Your task to perform on an android device: turn on showing notifications on the lock screen Image 0: 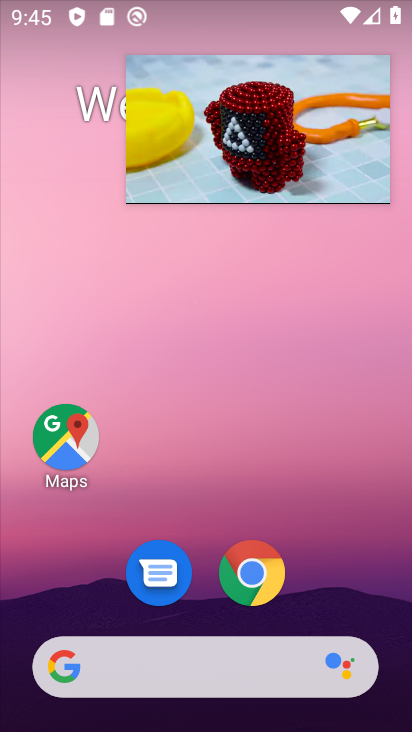
Step 0: drag from (375, 604) to (357, 231)
Your task to perform on an android device: turn on showing notifications on the lock screen Image 1: 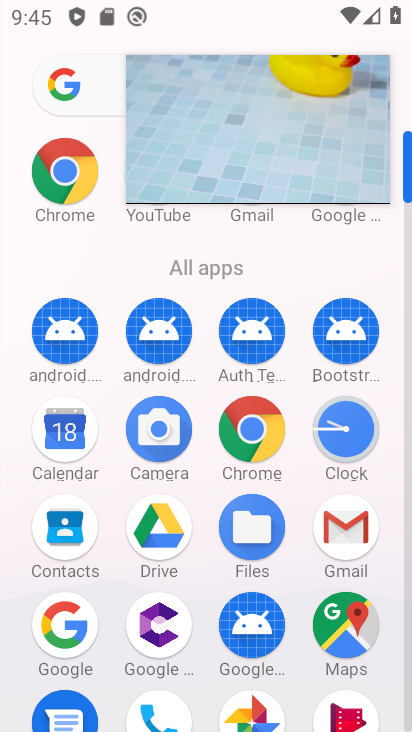
Step 1: drag from (203, 671) to (200, 356)
Your task to perform on an android device: turn on showing notifications on the lock screen Image 2: 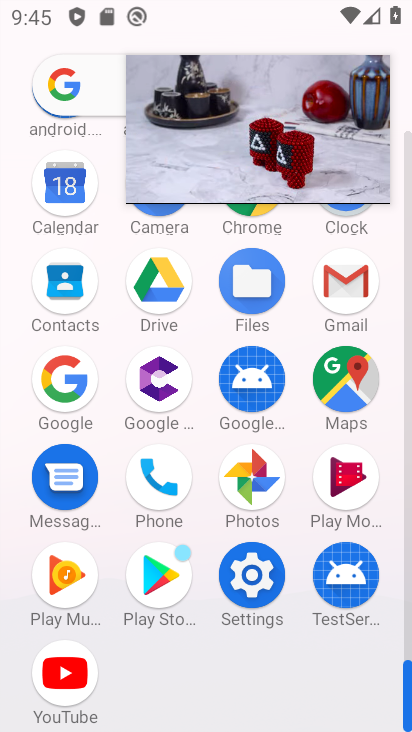
Step 2: click (263, 594)
Your task to perform on an android device: turn on showing notifications on the lock screen Image 3: 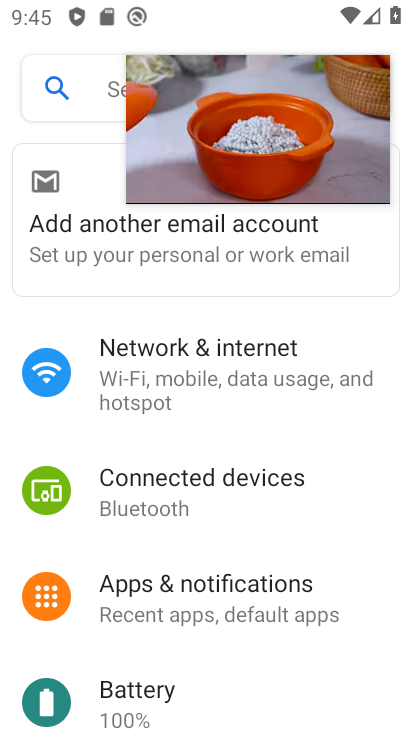
Step 3: drag from (357, 569) to (355, 431)
Your task to perform on an android device: turn on showing notifications on the lock screen Image 4: 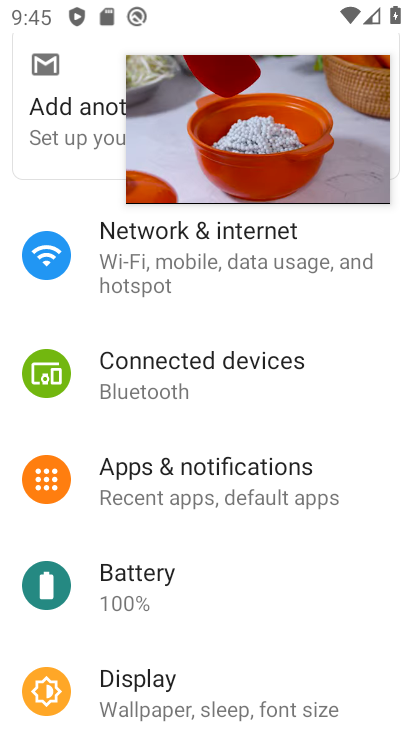
Step 4: drag from (343, 628) to (345, 490)
Your task to perform on an android device: turn on showing notifications on the lock screen Image 5: 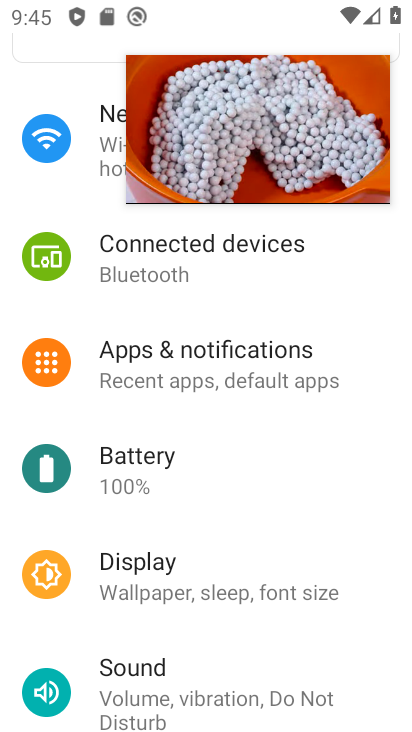
Step 5: drag from (354, 666) to (355, 517)
Your task to perform on an android device: turn on showing notifications on the lock screen Image 6: 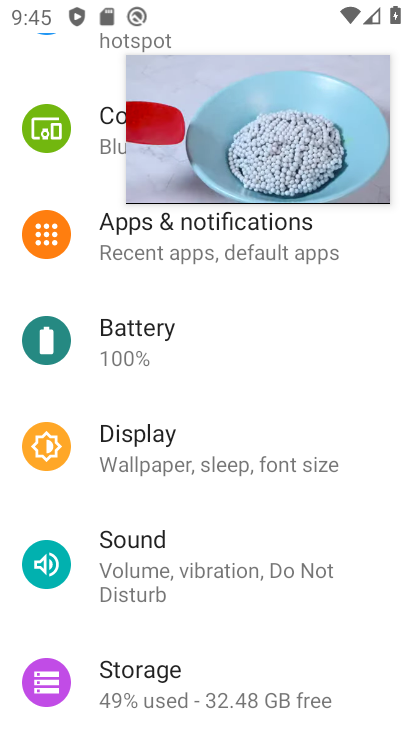
Step 6: drag from (360, 684) to (363, 528)
Your task to perform on an android device: turn on showing notifications on the lock screen Image 7: 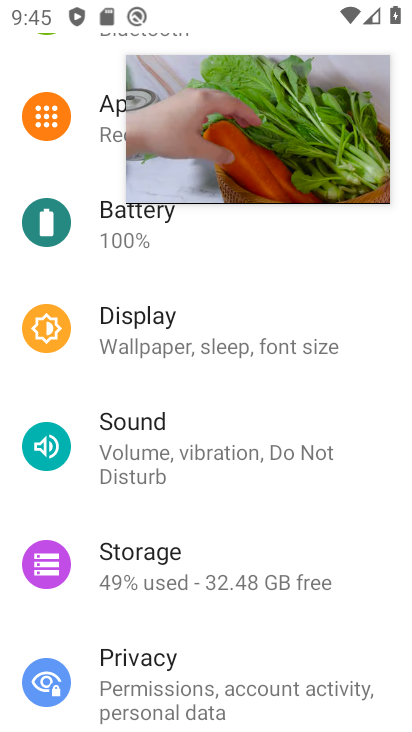
Step 7: drag from (371, 669) to (371, 509)
Your task to perform on an android device: turn on showing notifications on the lock screen Image 8: 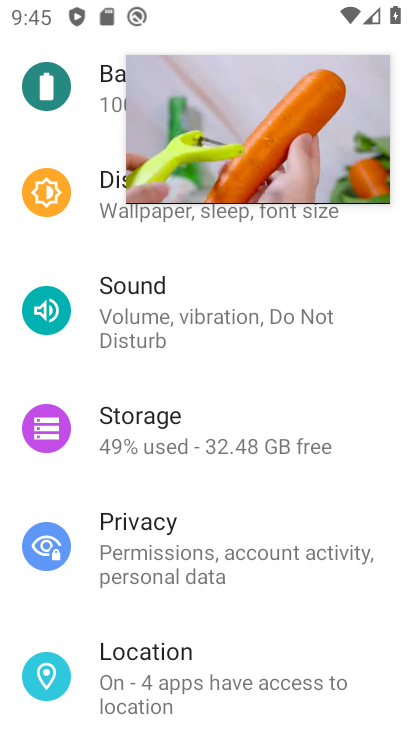
Step 8: drag from (375, 638) to (366, 525)
Your task to perform on an android device: turn on showing notifications on the lock screen Image 9: 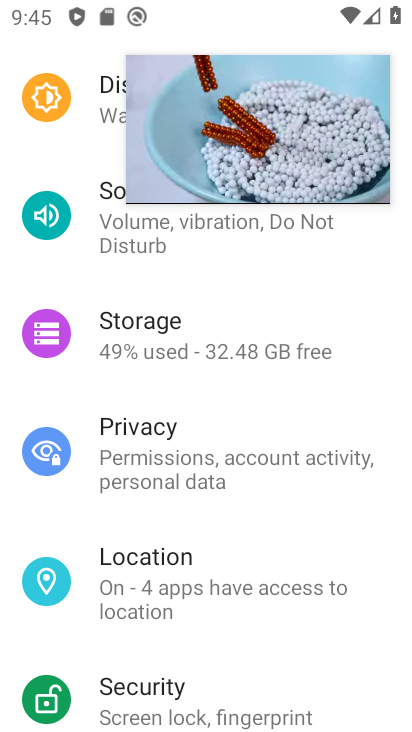
Step 9: drag from (356, 671) to (347, 566)
Your task to perform on an android device: turn on showing notifications on the lock screen Image 10: 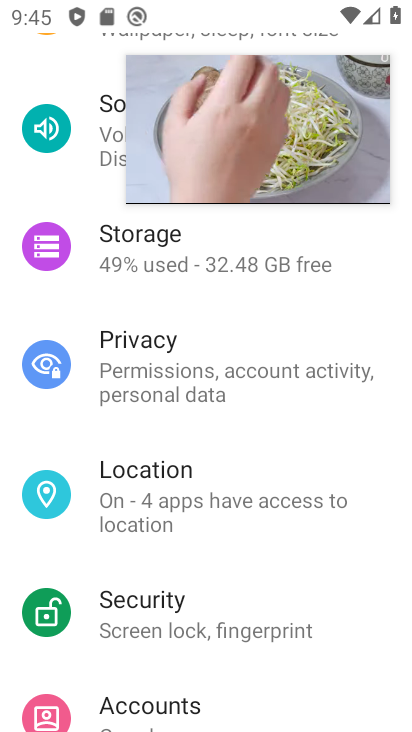
Step 10: drag from (361, 679) to (354, 580)
Your task to perform on an android device: turn on showing notifications on the lock screen Image 11: 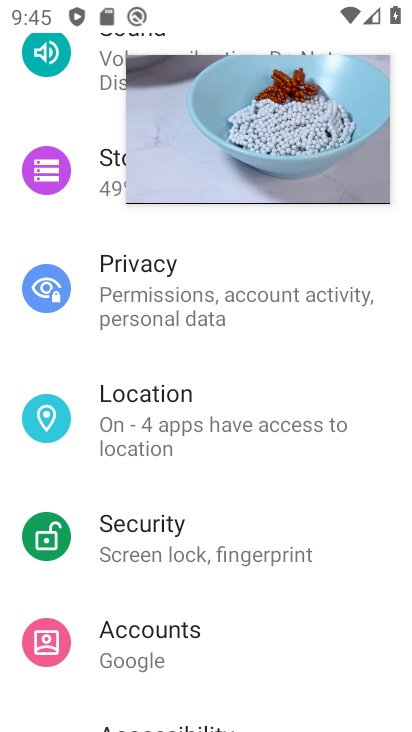
Step 11: drag from (355, 657) to (361, 564)
Your task to perform on an android device: turn on showing notifications on the lock screen Image 12: 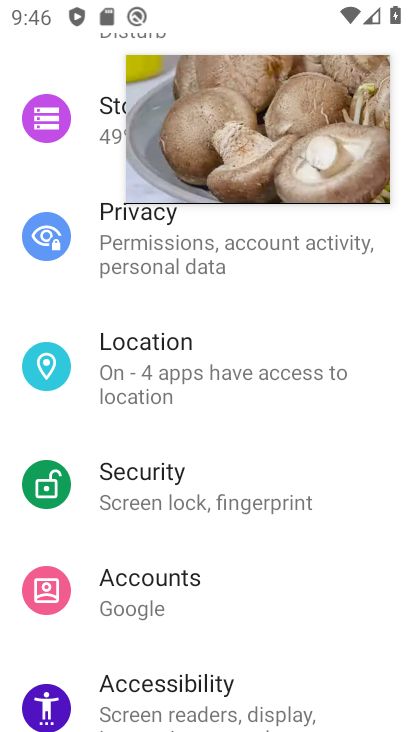
Step 12: drag from (366, 674) to (359, 551)
Your task to perform on an android device: turn on showing notifications on the lock screen Image 13: 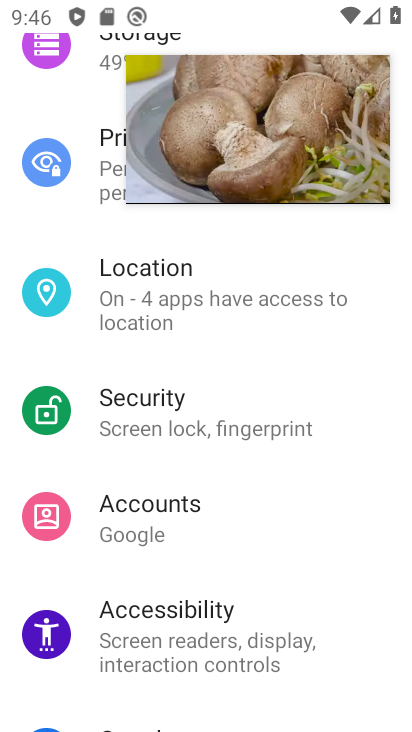
Step 13: drag from (364, 672) to (345, 553)
Your task to perform on an android device: turn on showing notifications on the lock screen Image 14: 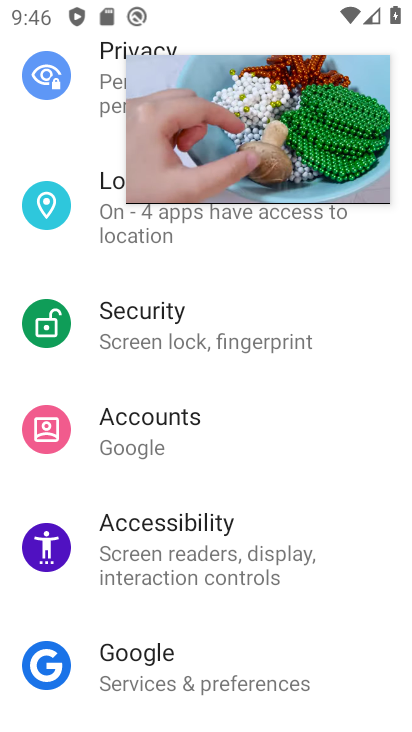
Step 14: drag from (352, 687) to (343, 559)
Your task to perform on an android device: turn on showing notifications on the lock screen Image 15: 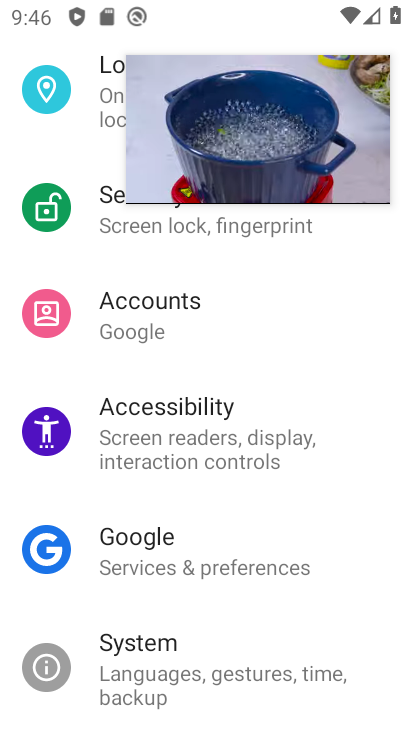
Step 15: drag from (355, 340) to (356, 535)
Your task to perform on an android device: turn on showing notifications on the lock screen Image 16: 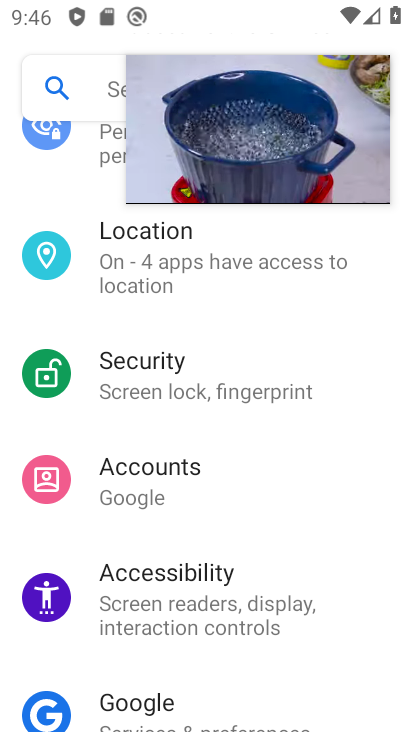
Step 16: drag from (340, 355) to (343, 508)
Your task to perform on an android device: turn on showing notifications on the lock screen Image 17: 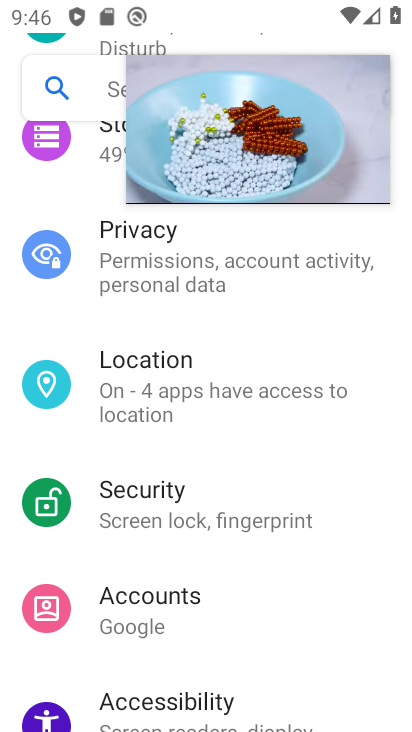
Step 17: drag from (348, 303) to (351, 486)
Your task to perform on an android device: turn on showing notifications on the lock screen Image 18: 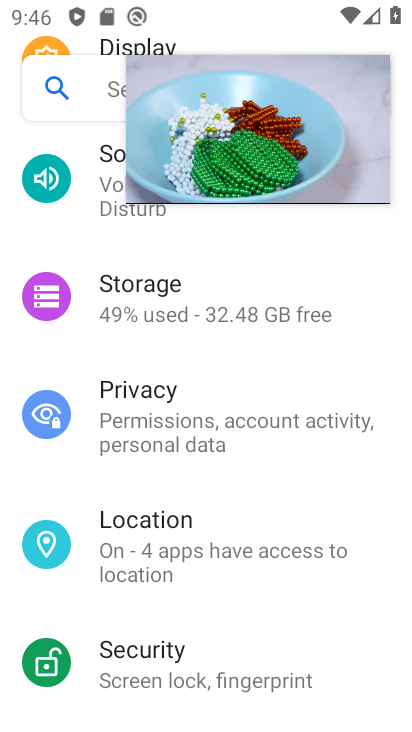
Step 18: drag from (350, 275) to (327, 511)
Your task to perform on an android device: turn on showing notifications on the lock screen Image 19: 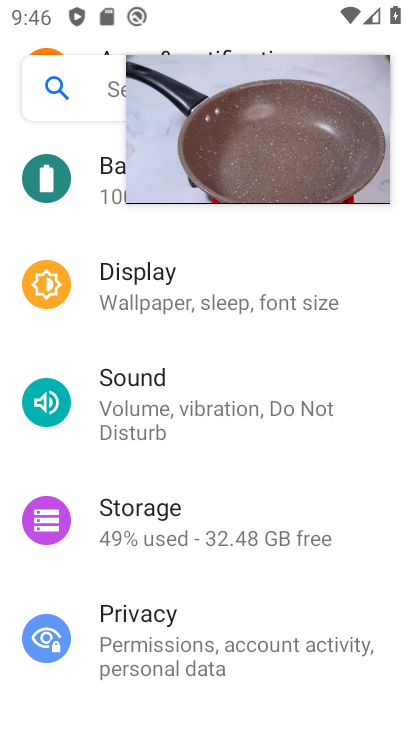
Step 19: drag from (344, 265) to (350, 484)
Your task to perform on an android device: turn on showing notifications on the lock screen Image 20: 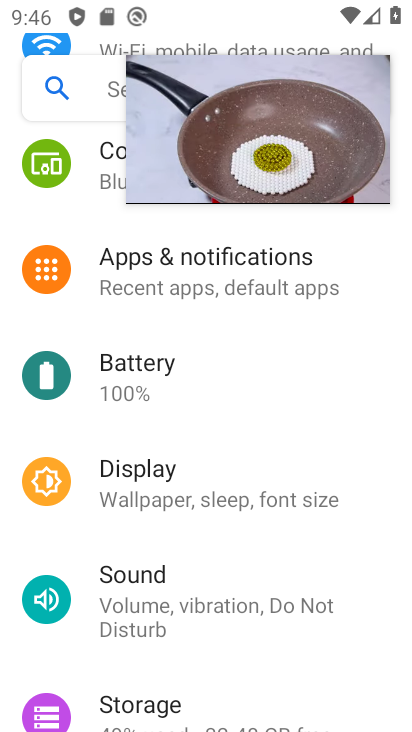
Step 20: drag from (330, 403) to (333, 545)
Your task to perform on an android device: turn on showing notifications on the lock screen Image 21: 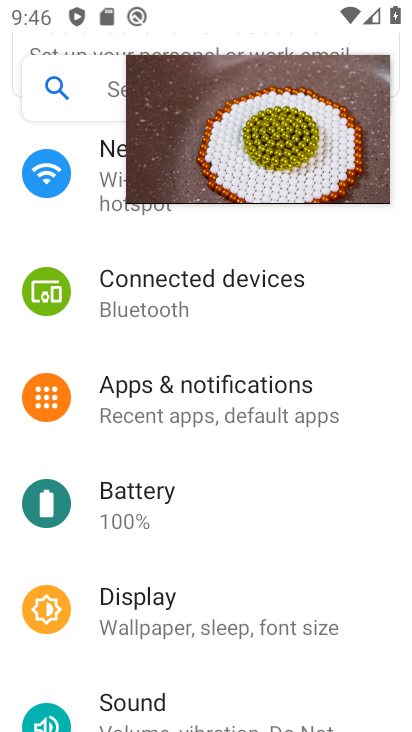
Step 21: click (249, 402)
Your task to perform on an android device: turn on showing notifications on the lock screen Image 22: 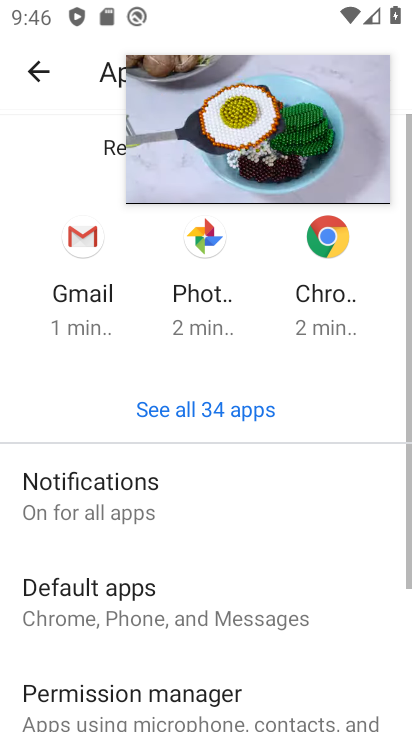
Step 22: drag from (298, 550) to (294, 379)
Your task to perform on an android device: turn on showing notifications on the lock screen Image 23: 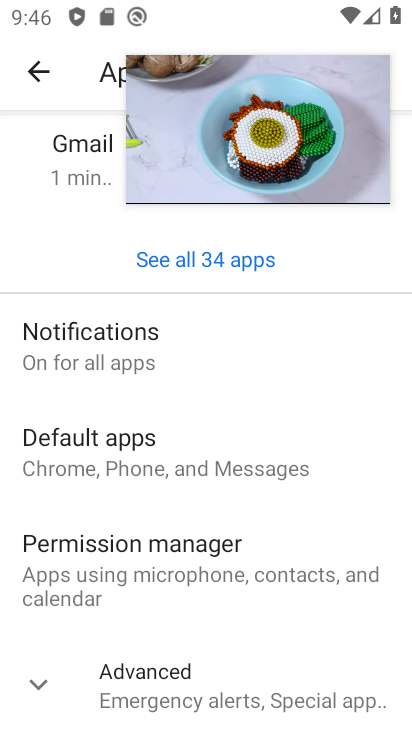
Step 23: drag from (286, 625) to (291, 434)
Your task to perform on an android device: turn on showing notifications on the lock screen Image 24: 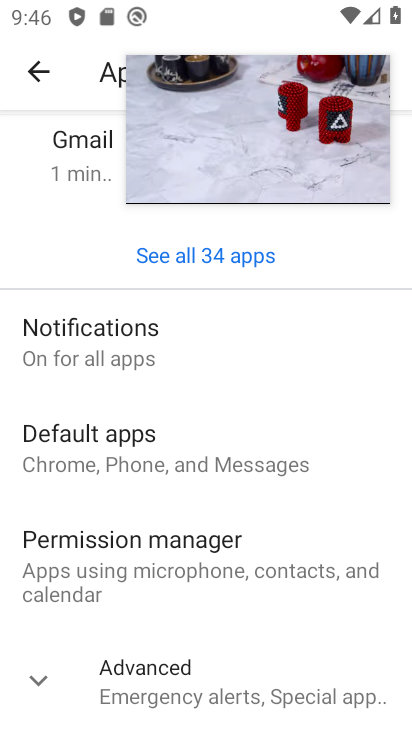
Step 24: click (155, 356)
Your task to perform on an android device: turn on showing notifications on the lock screen Image 25: 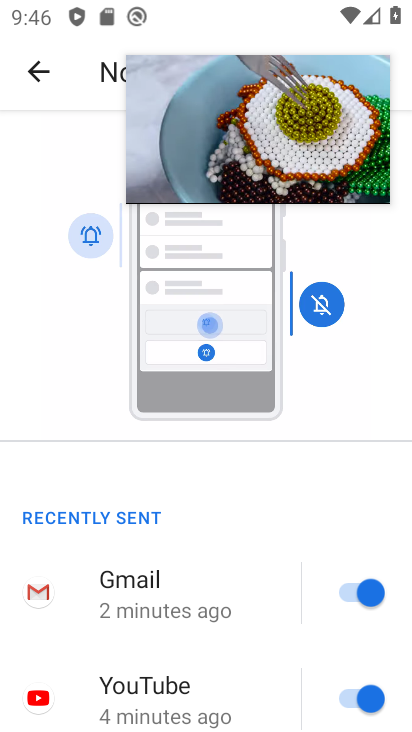
Step 25: drag from (265, 581) to (255, 384)
Your task to perform on an android device: turn on showing notifications on the lock screen Image 26: 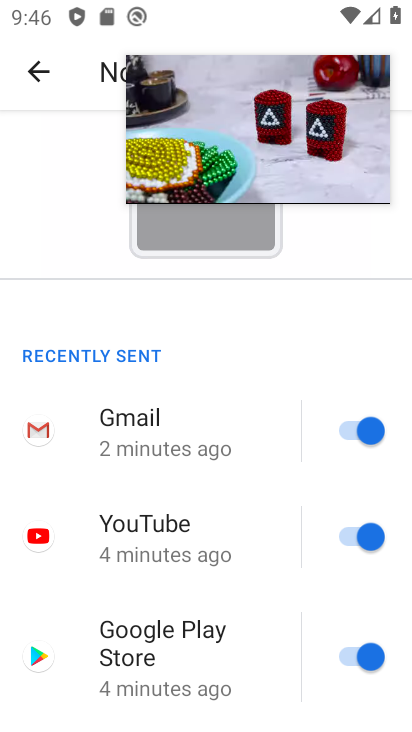
Step 26: drag from (250, 607) to (244, 396)
Your task to perform on an android device: turn on showing notifications on the lock screen Image 27: 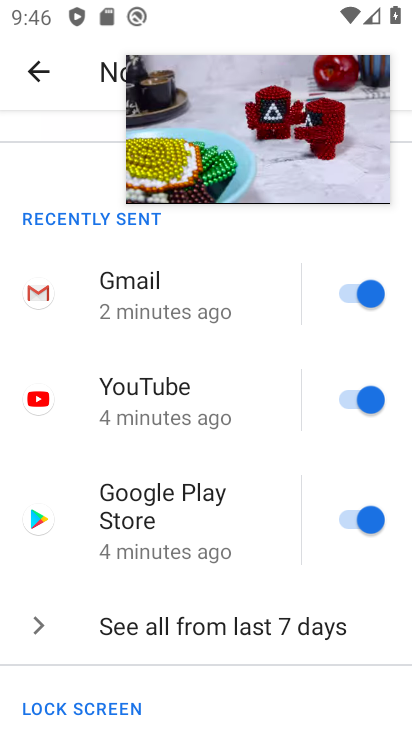
Step 27: drag from (244, 632) to (258, 401)
Your task to perform on an android device: turn on showing notifications on the lock screen Image 28: 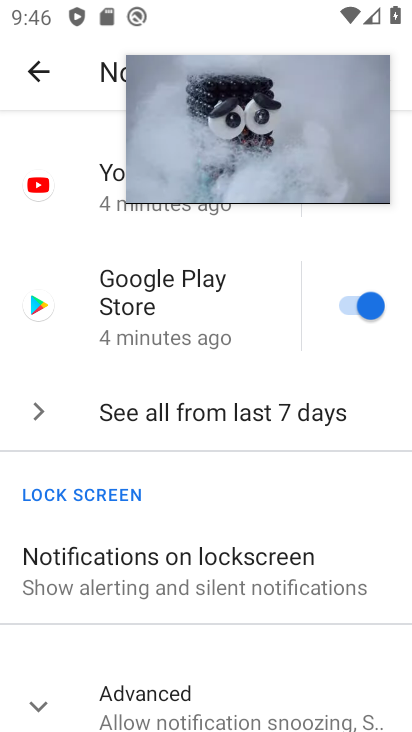
Step 28: drag from (244, 601) to (243, 424)
Your task to perform on an android device: turn on showing notifications on the lock screen Image 29: 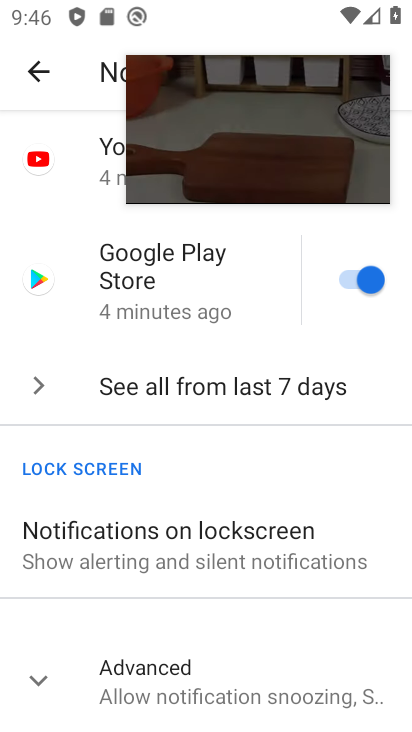
Step 29: click (233, 530)
Your task to perform on an android device: turn on showing notifications on the lock screen Image 30: 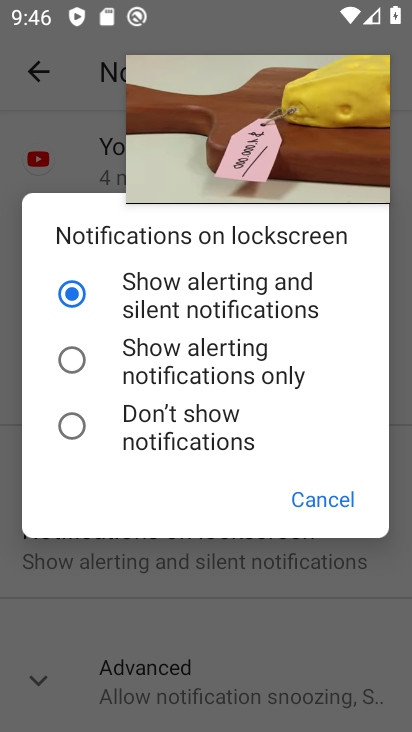
Step 30: task complete